Your task to perform on an android device: clear all cookies in the chrome app Image 0: 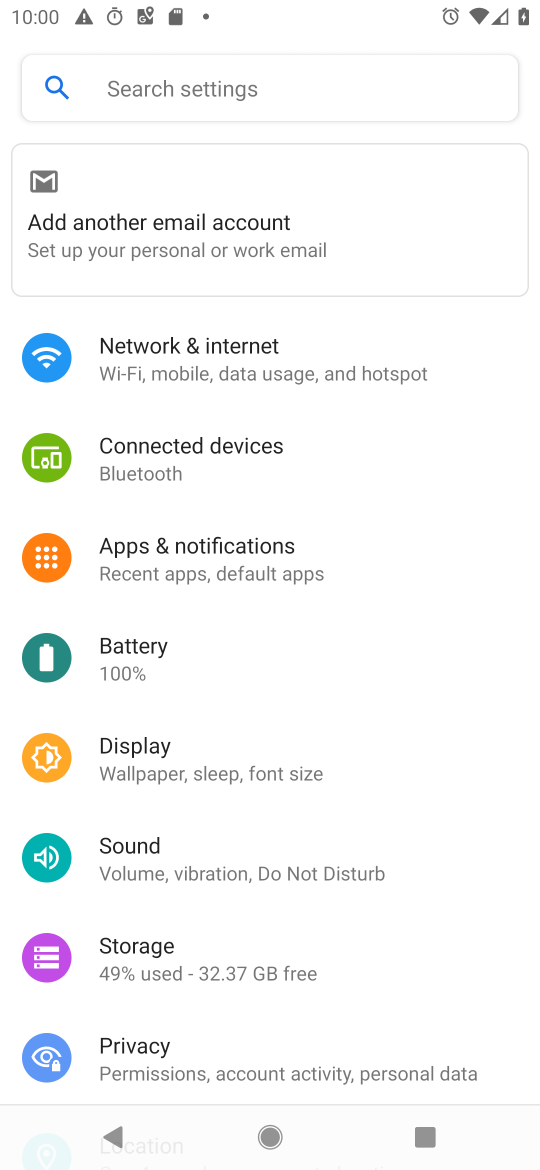
Step 0: press home button
Your task to perform on an android device: clear all cookies in the chrome app Image 1: 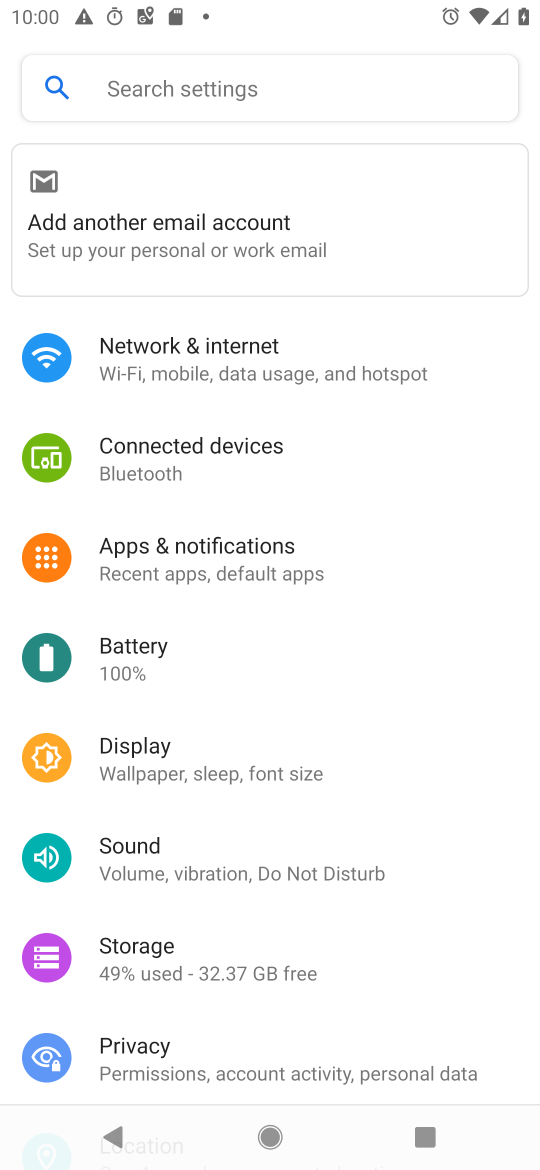
Step 1: press home button
Your task to perform on an android device: clear all cookies in the chrome app Image 2: 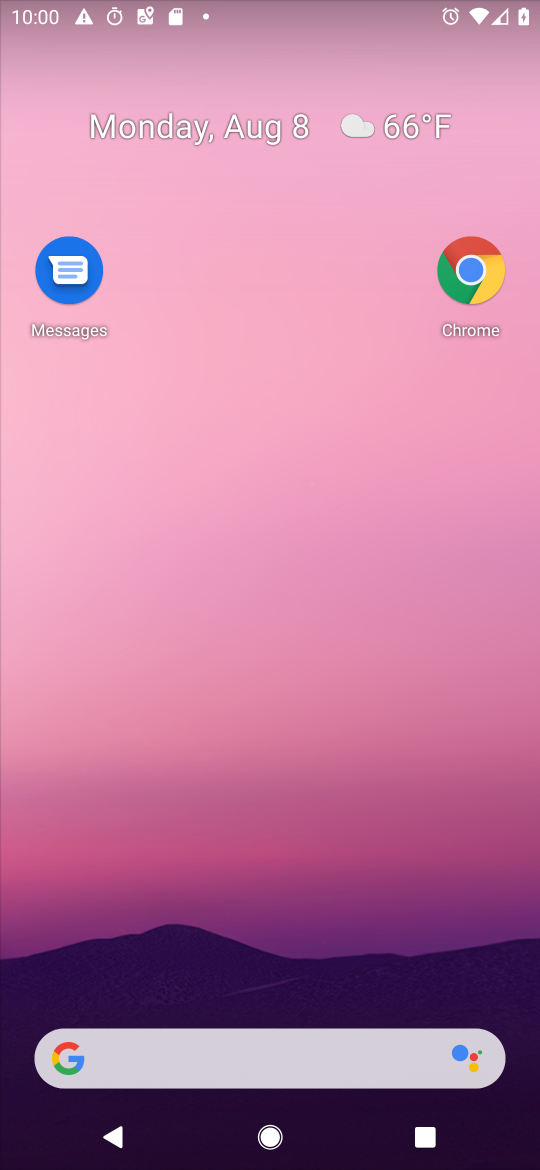
Step 2: drag from (270, 943) to (322, 437)
Your task to perform on an android device: clear all cookies in the chrome app Image 3: 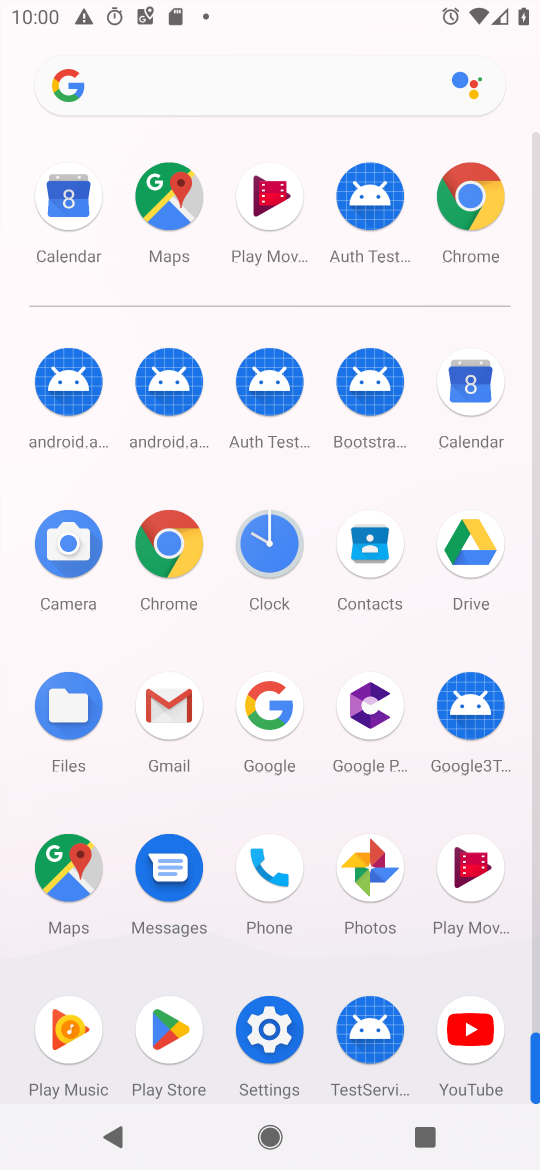
Step 3: drag from (334, 777) to (336, 546)
Your task to perform on an android device: clear all cookies in the chrome app Image 4: 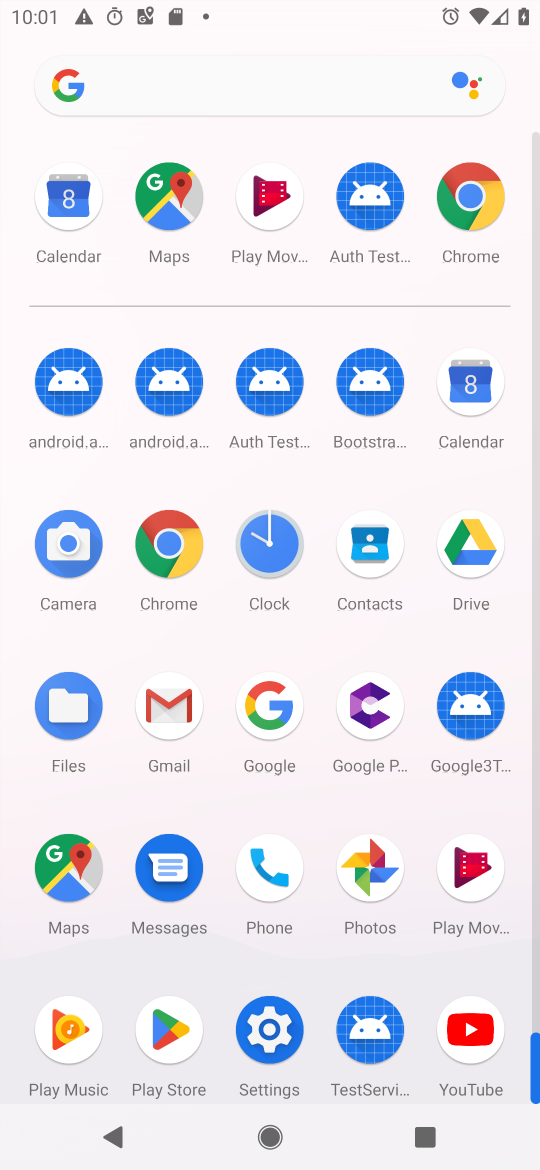
Step 4: click (468, 197)
Your task to perform on an android device: clear all cookies in the chrome app Image 5: 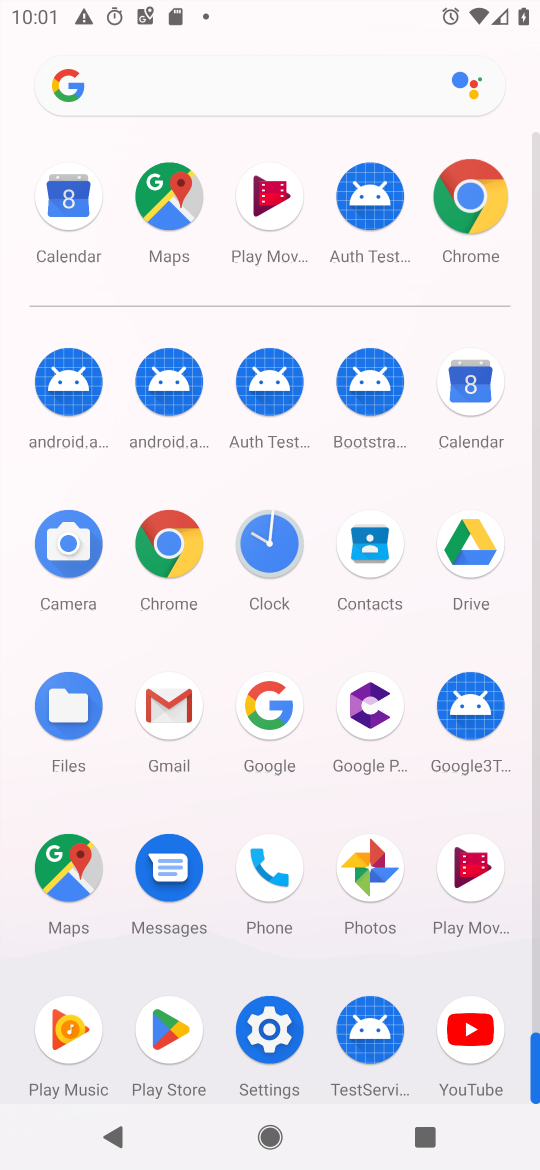
Step 5: click (468, 197)
Your task to perform on an android device: clear all cookies in the chrome app Image 6: 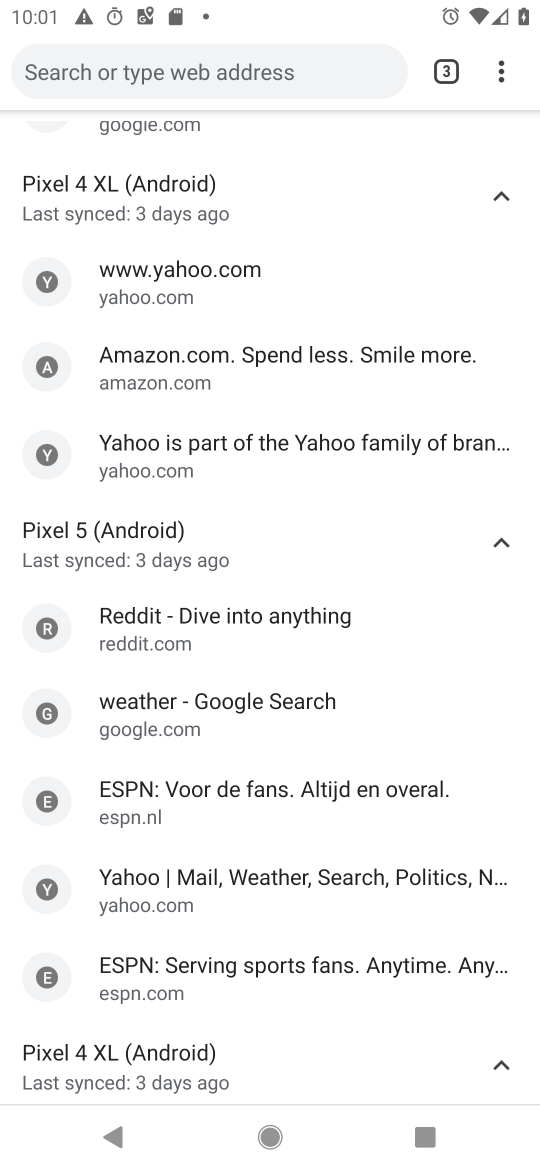
Step 6: drag from (257, 966) to (321, 619)
Your task to perform on an android device: clear all cookies in the chrome app Image 7: 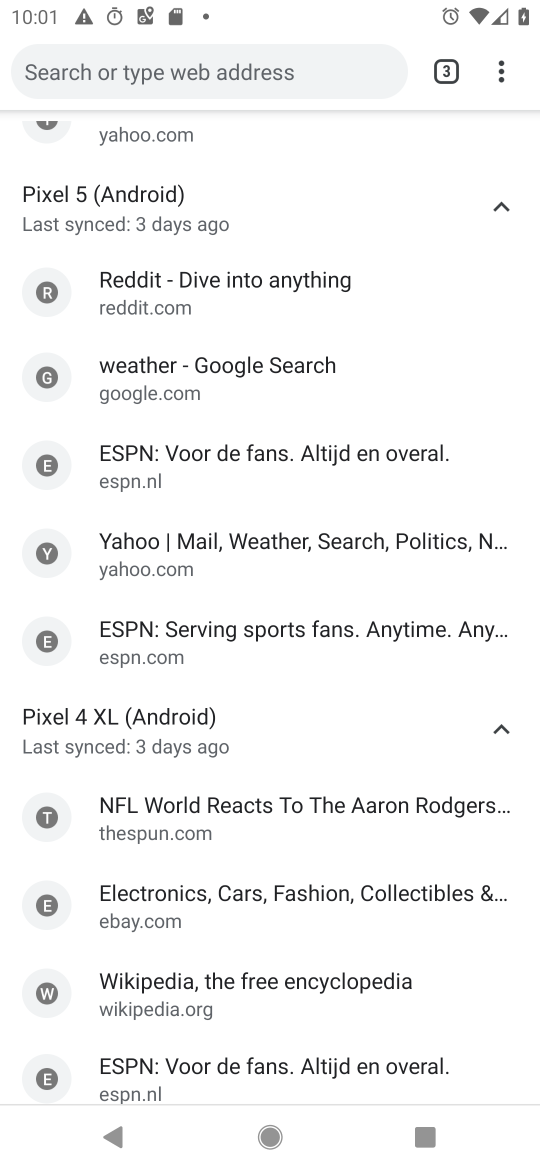
Step 7: drag from (218, 188) to (330, 944)
Your task to perform on an android device: clear all cookies in the chrome app Image 8: 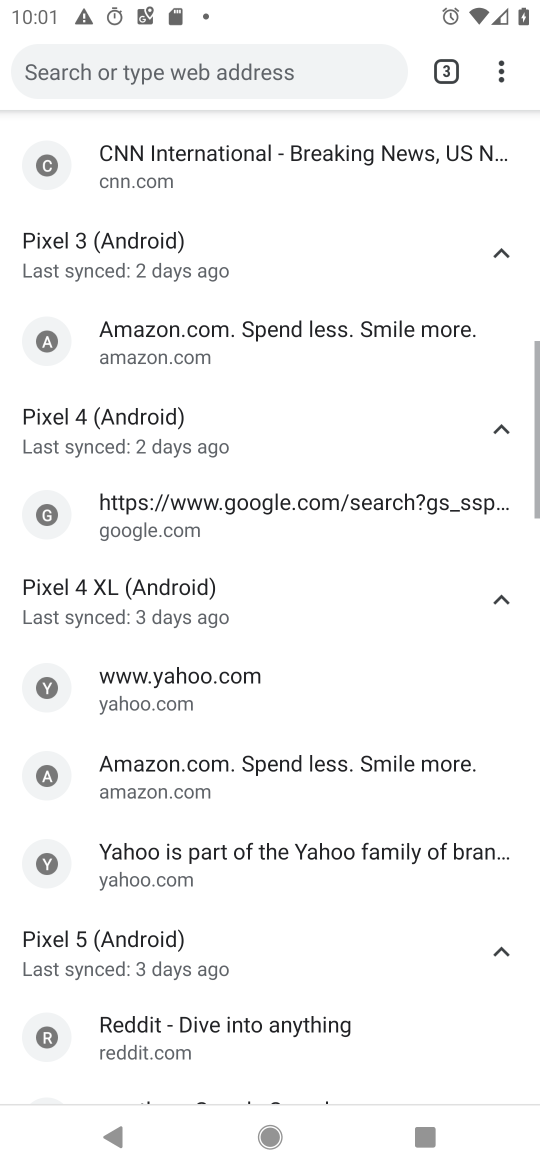
Step 8: drag from (261, 807) to (386, 216)
Your task to perform on an android device: clear all cookies in the chrome app Image 9: 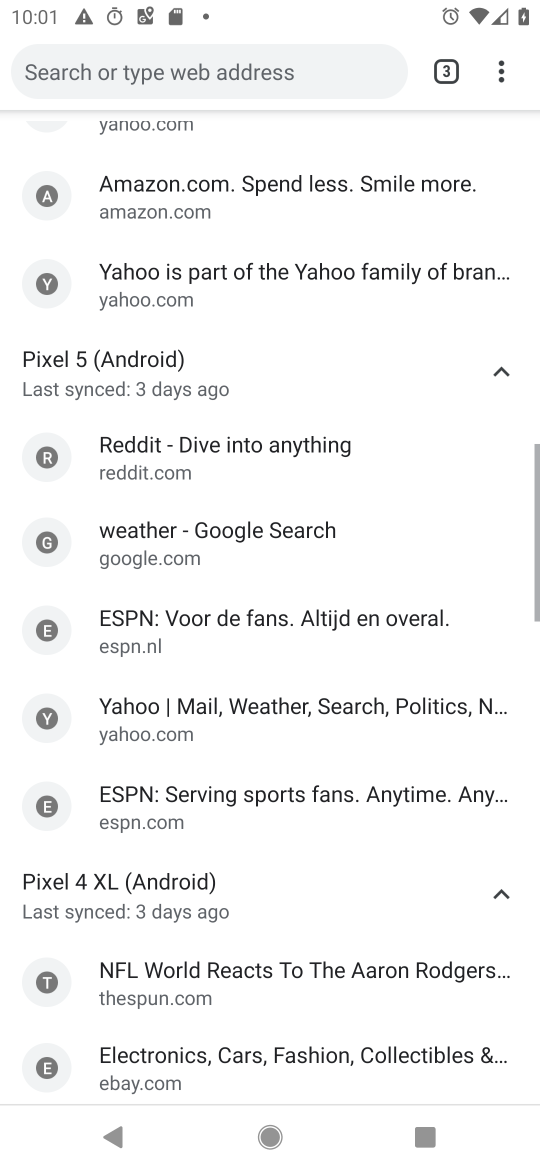
Step 9: drag from (353, 275) to (463, 1144)
Your task to perform on an android device: clear all cookies in the chrome app Image 10: 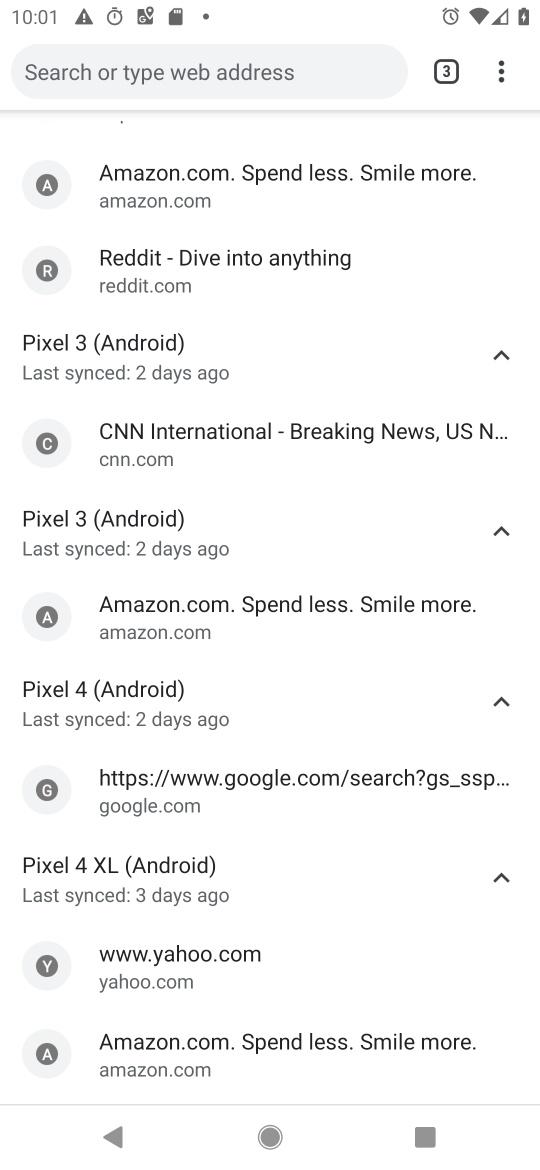
Step 10: drag from (504, 70) to (268, 410)
Your task to perform on an android device: clear all cookies in the chrome app Image 11: 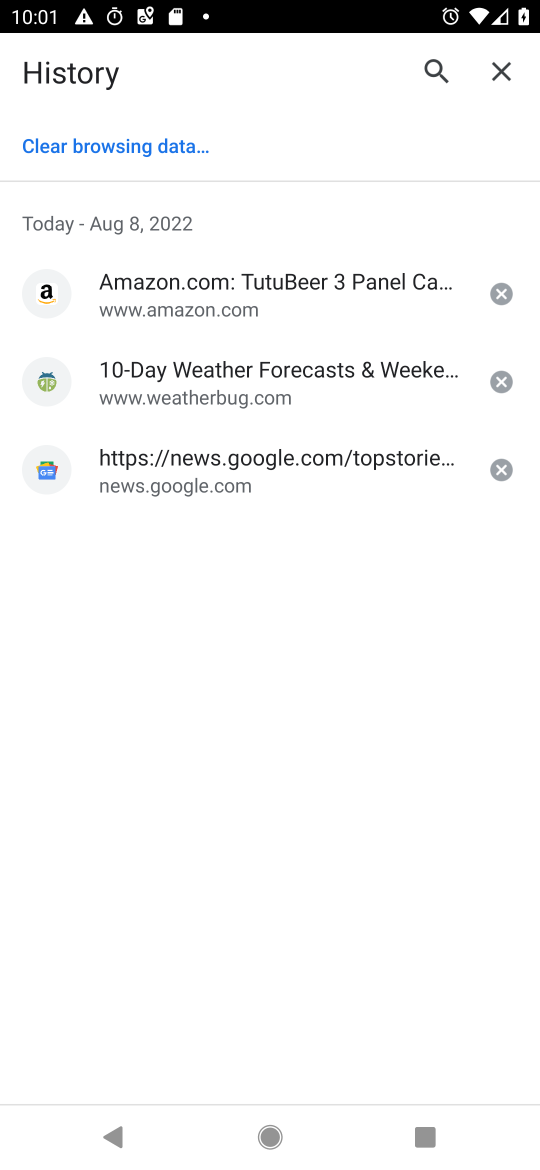
Step 11: drag from (268, 1089) to (299, 881)
Your task to perform on an android device: clear all cookies in the chrome app Image 12: 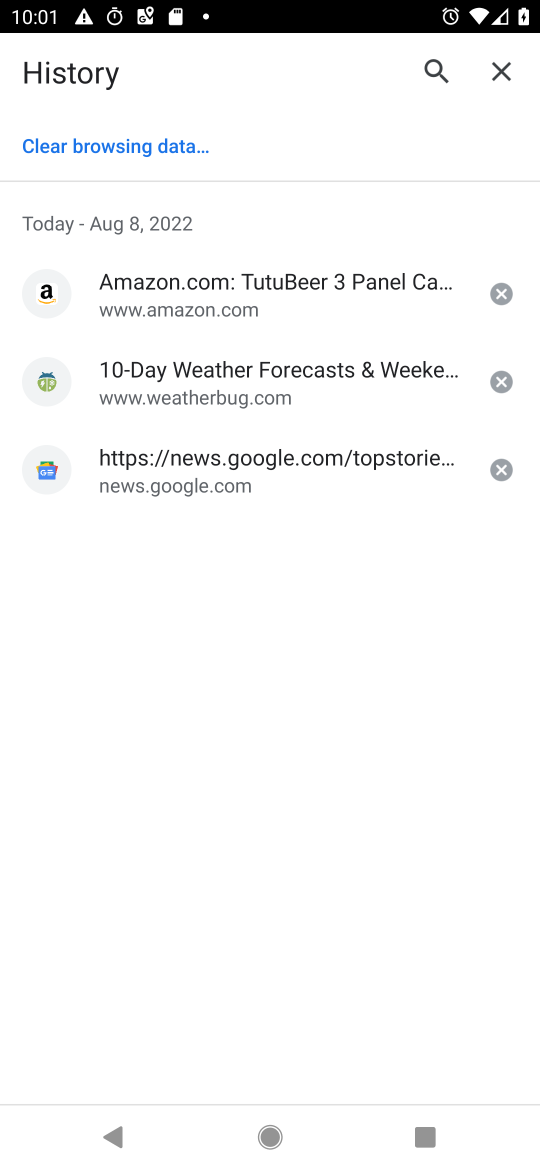
Step 12: click (129, 135)
Your task to perform on an android device: clear all cookies in the chrome app Image 13: 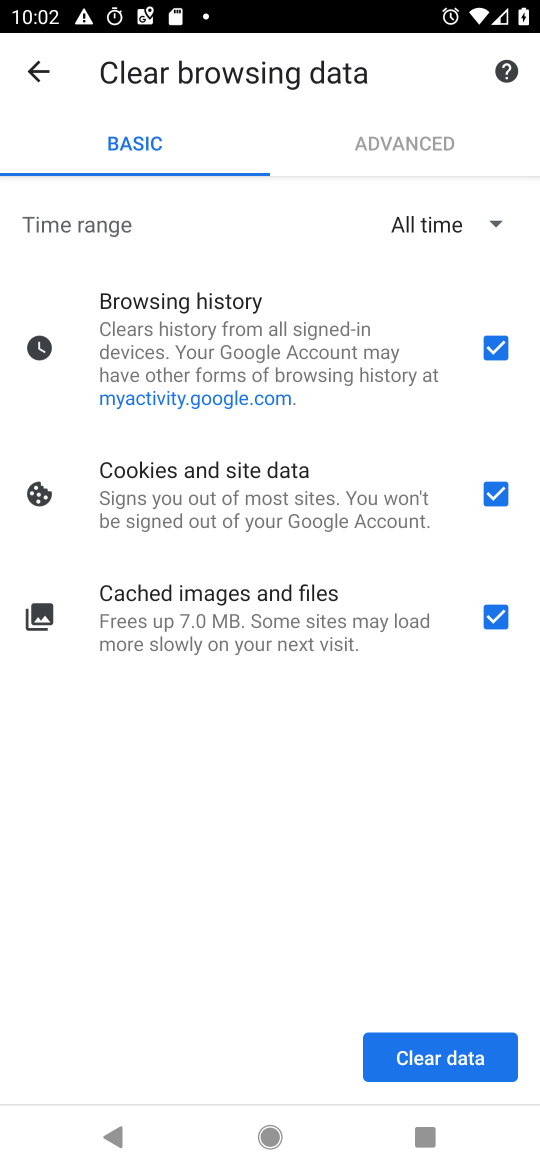
Step 13: click (487, 354)
Your task to perform on an android device: clear all cookies in the chrome app Image 14: 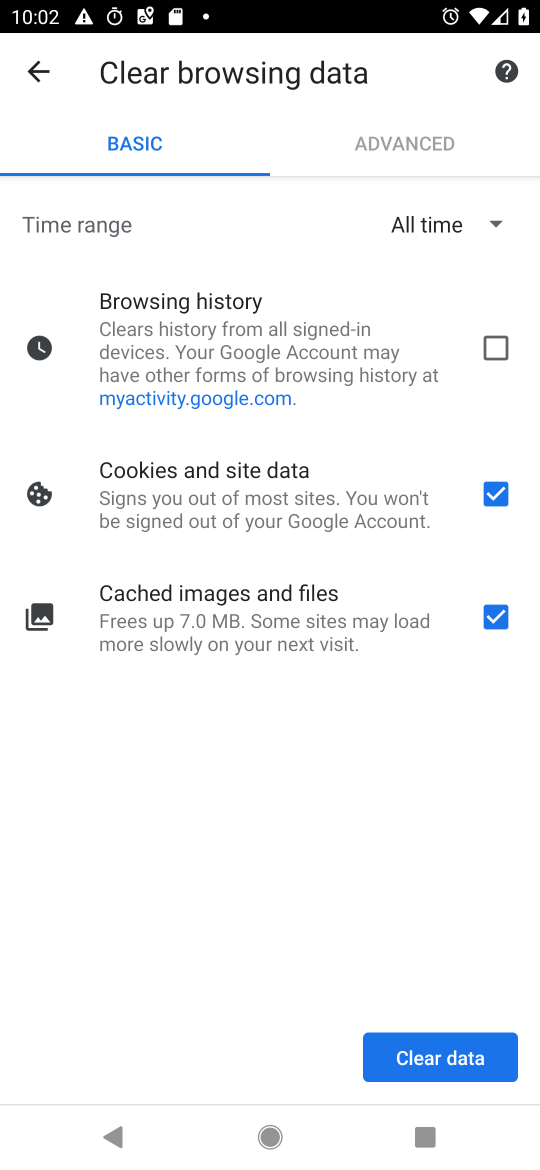
Step 14: click (493, 615)
Your task to perform on an android device: clear all cookies in the chrome app Image 15: 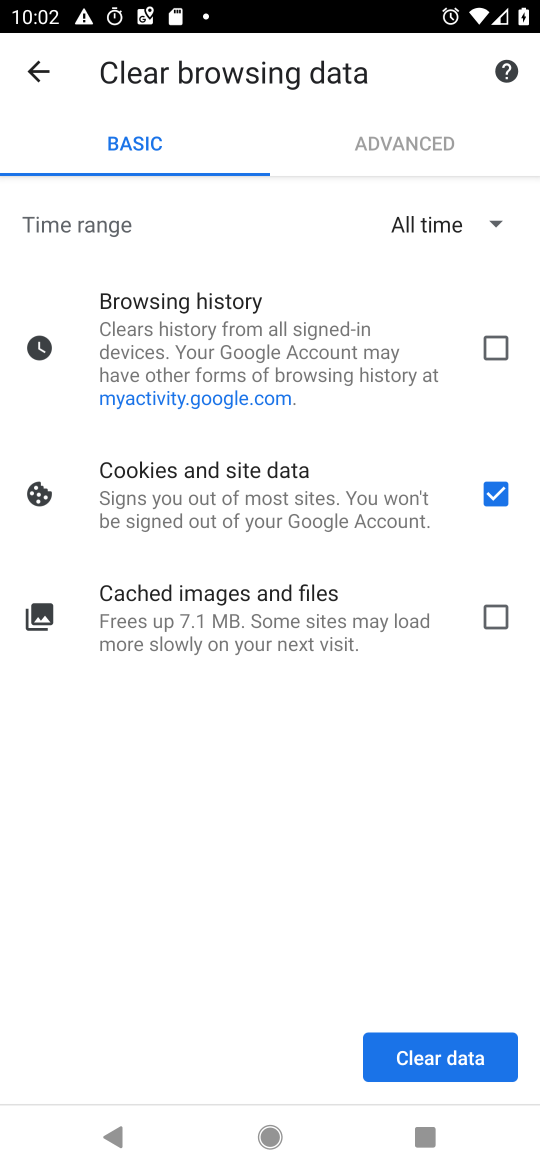
Step 15: click (447, 1072)
Your task to perform on an android device: clear all cookies in the chrome app Image 16: 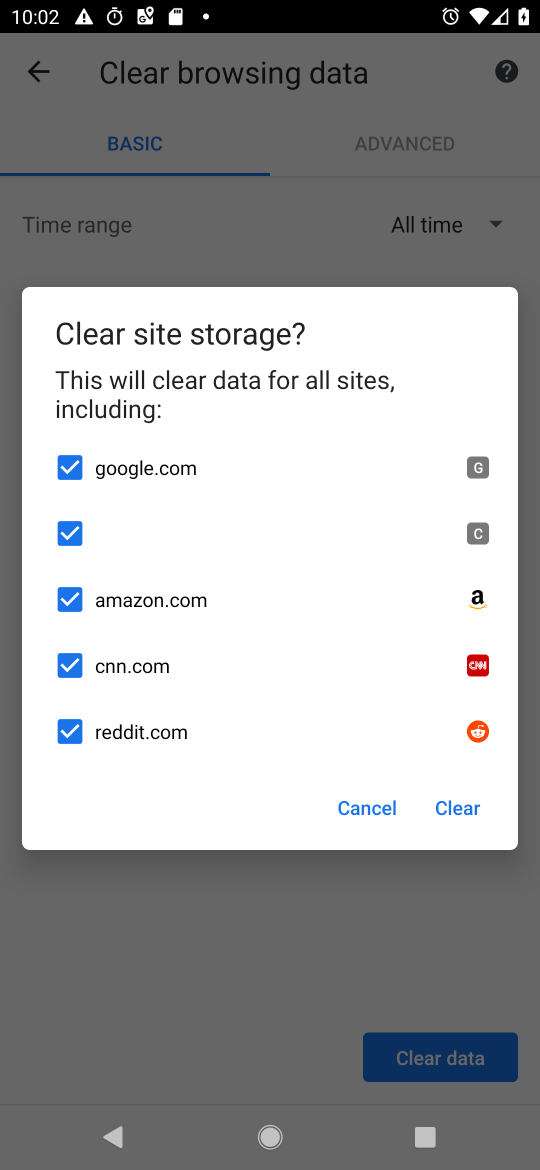
Step 16: click (459, 809)
Your task to perform on an android device: clear all cookies in the chrome app Image 17: 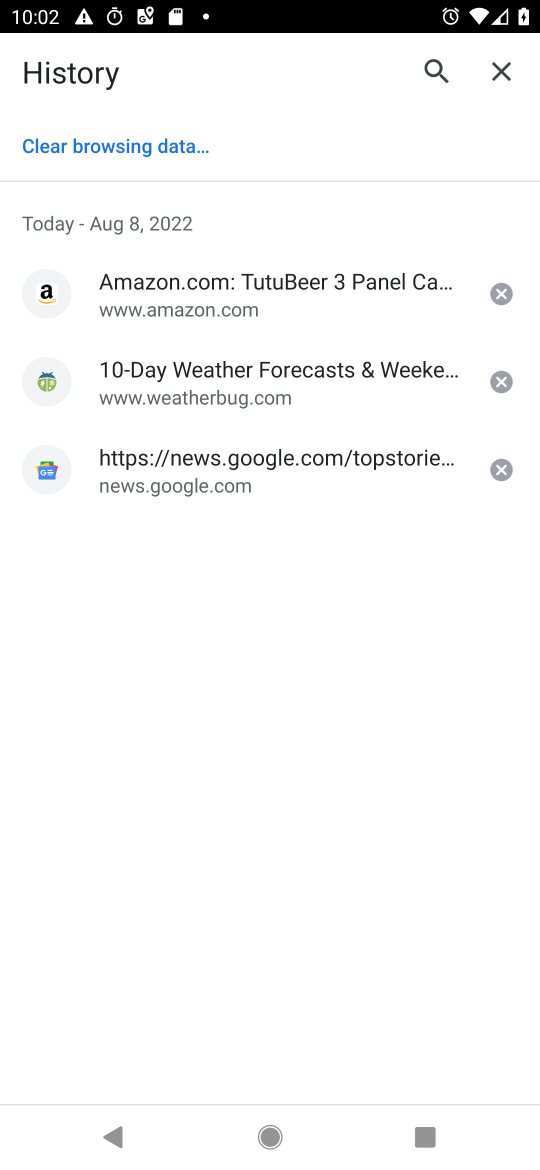
Step 17: task complete